Your task to perform on an android device: What is the news today? Image 0: 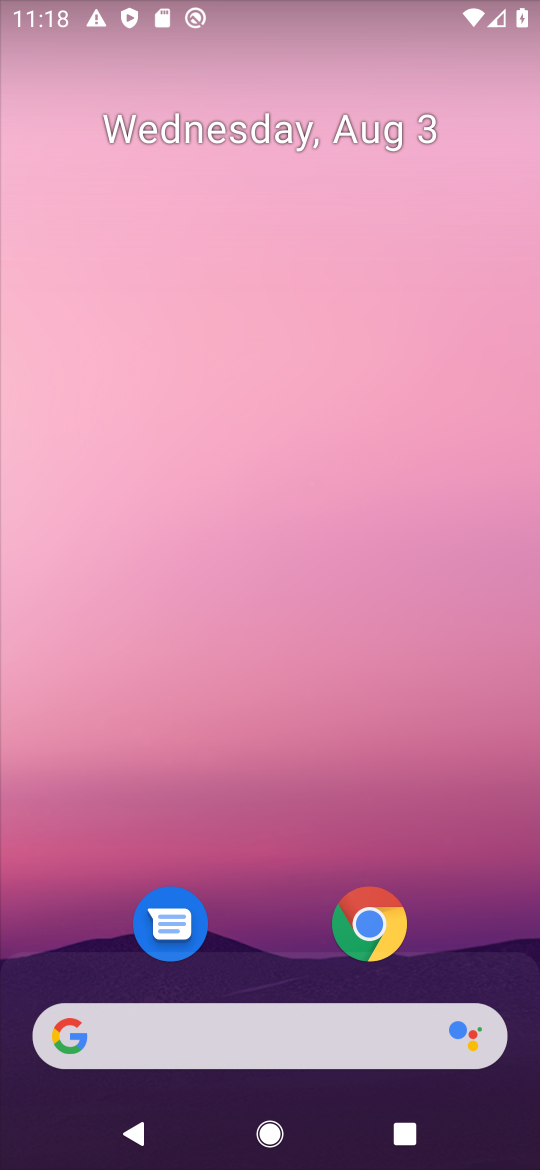
Step 0: click (212, 1025)
Your task to perform on an android device: What is the news today? Image 1: 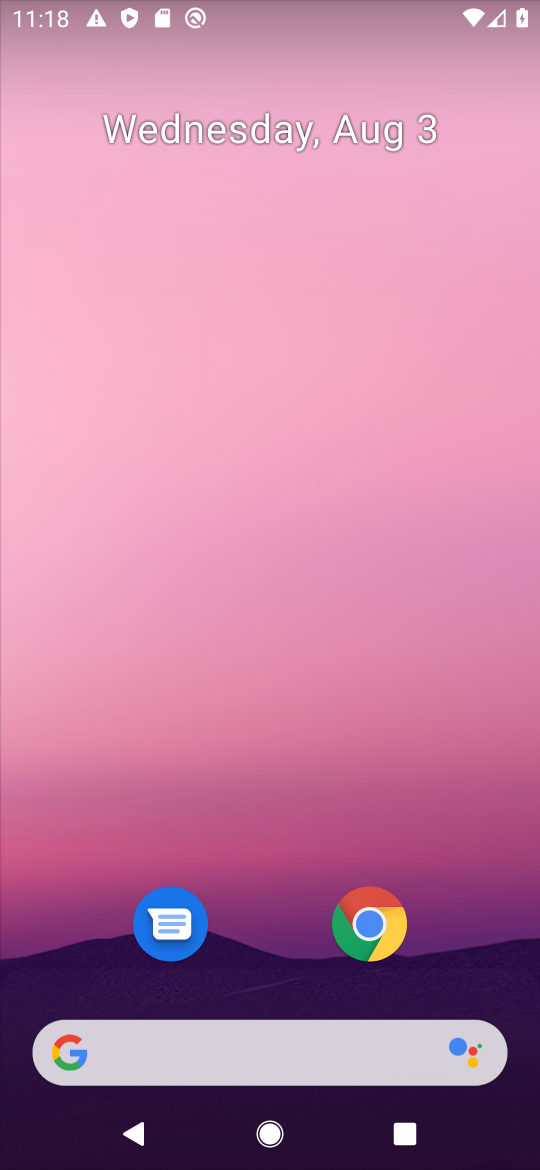
Step 1: click (168, 1078)
Your task to perform on an android device: What is the news today? Image 2: 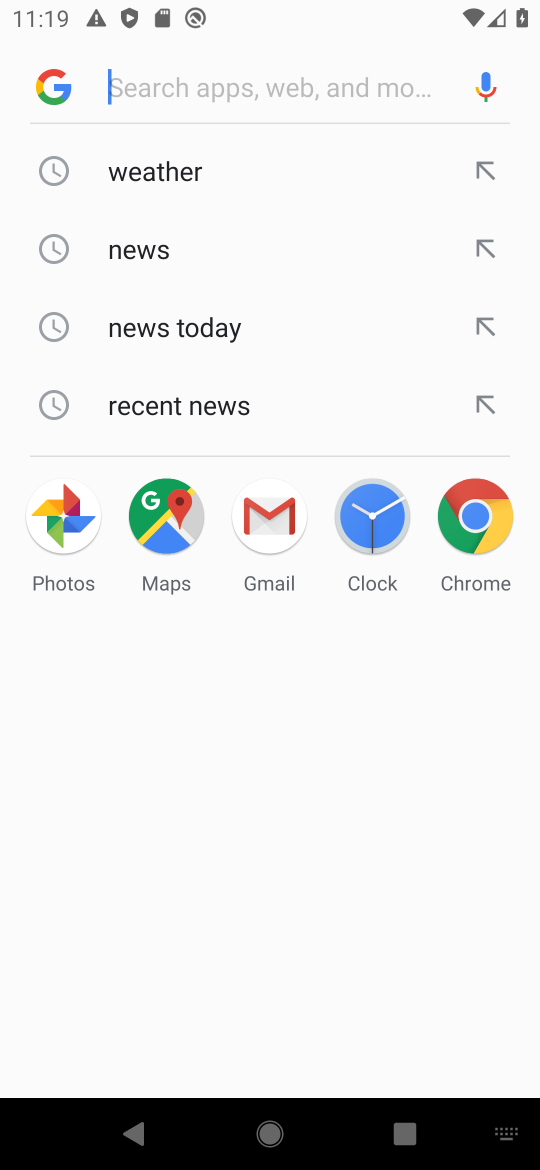
Step 2: type "What is the news today?"
Your task to perform on an android device: What is the news today? Image 3: 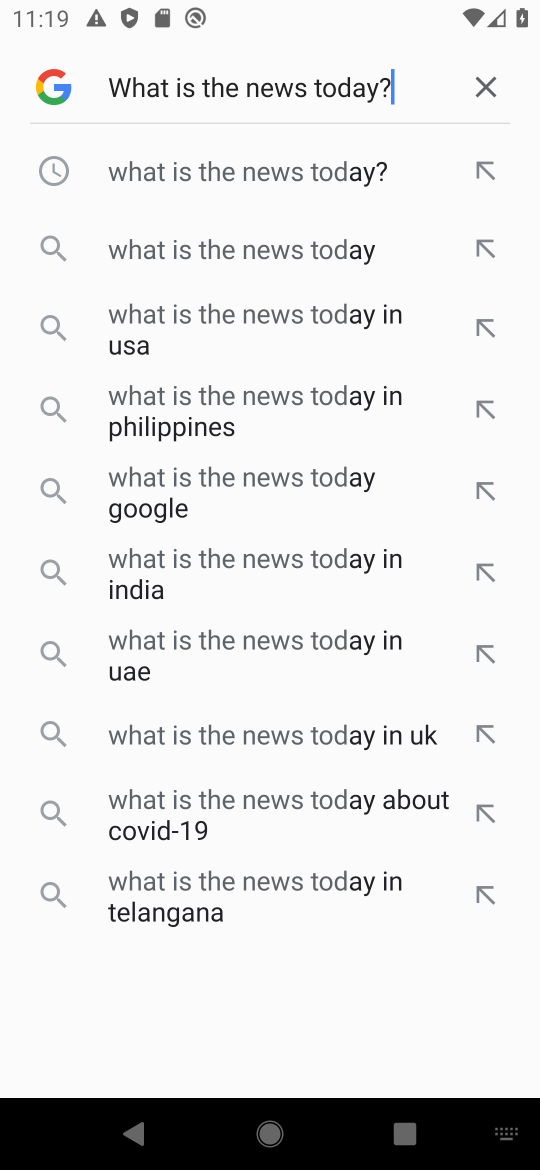
Step 3: type ""
Your task to perform on an android device: What is the news today? Image 4: 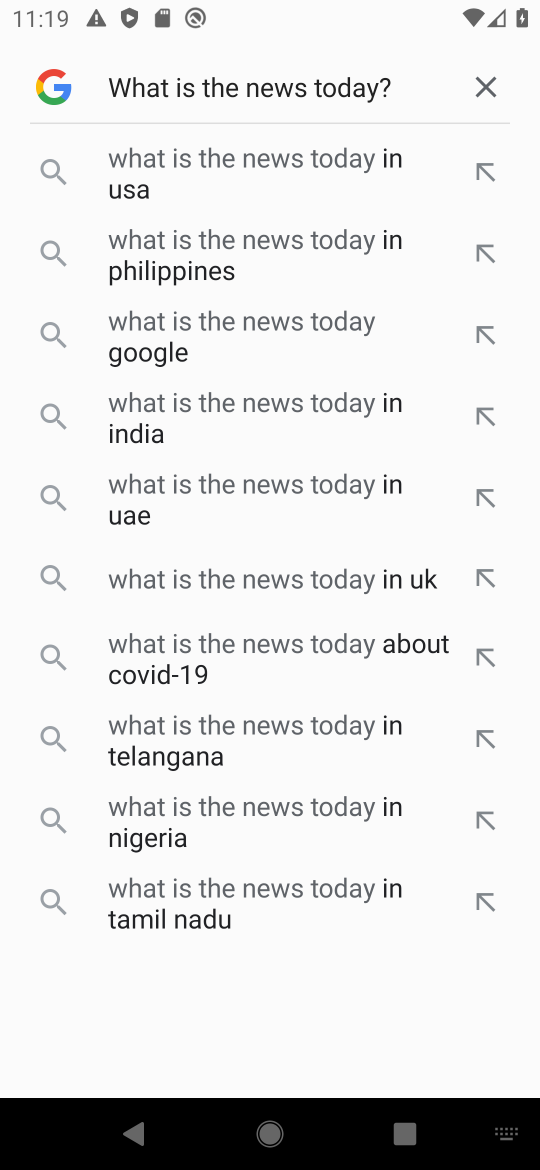
Step 4: task complete